Your task to perform on an android device: find which apps use the phone's location Image 0: 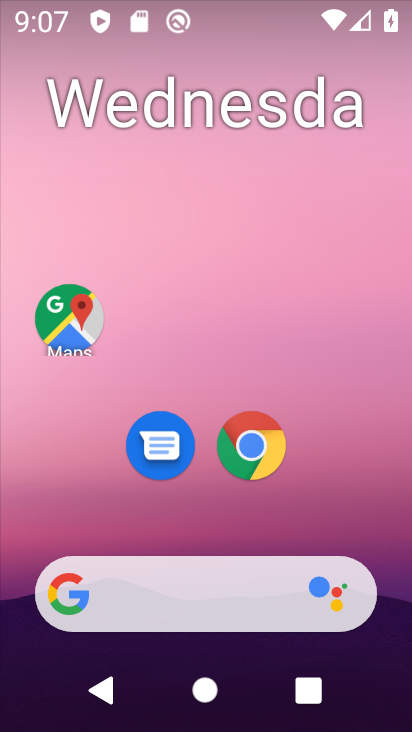
Step 0: press home button
Your task to perform on an android device: find which apps use the phone's location Image 1: 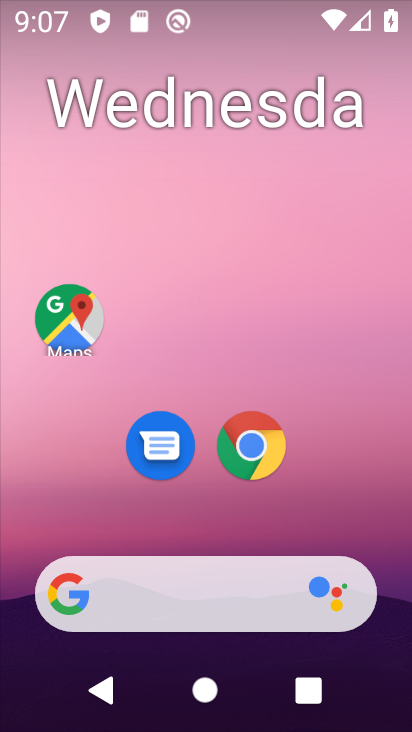
Step 1: drag from (244, 419) to (318, 133)
Your task to perform on an android device: find which apps use the phone's location Image 2: 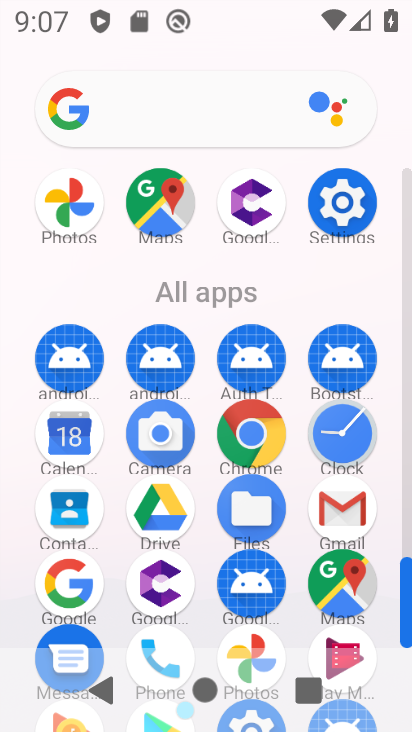
Step 2: click (348, 222)
Your task to perform on an android device: find which apps use the phone's location Image 3: 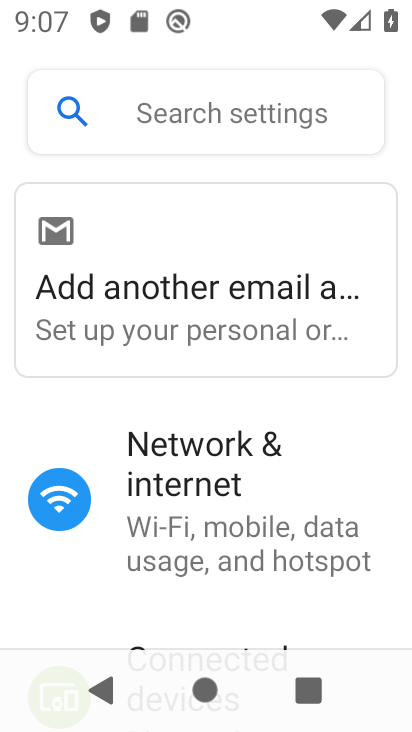
Step 3: drag from (203, 608) to (335, 118)
Your task to perform on an android device: find which apps use the phone's location Image 4: 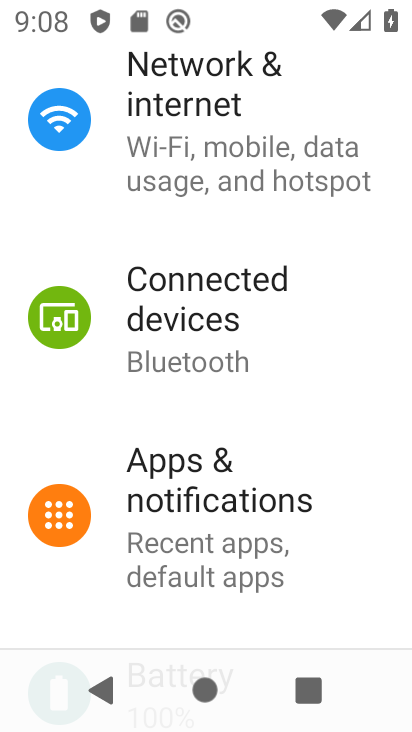
Step 4: drag from (218, 588) to (364, 237)
Your task to perform on an android device: find which apps use the phone's location Image 5: 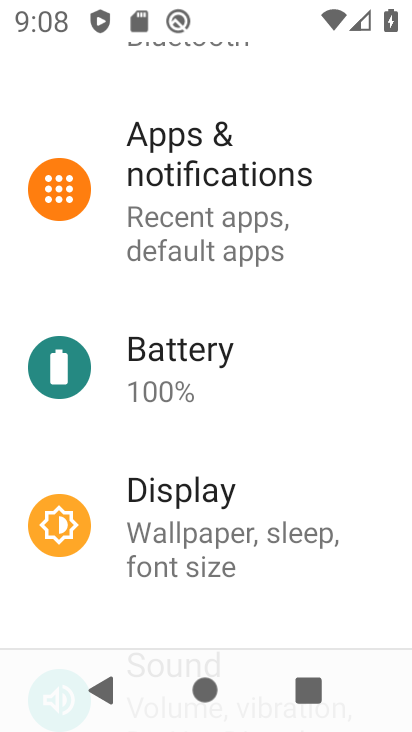
Step 5: drag from (189, 617) to (324, 48)
Your task to perform on an android device: find which apps use the phone's location Image 6: 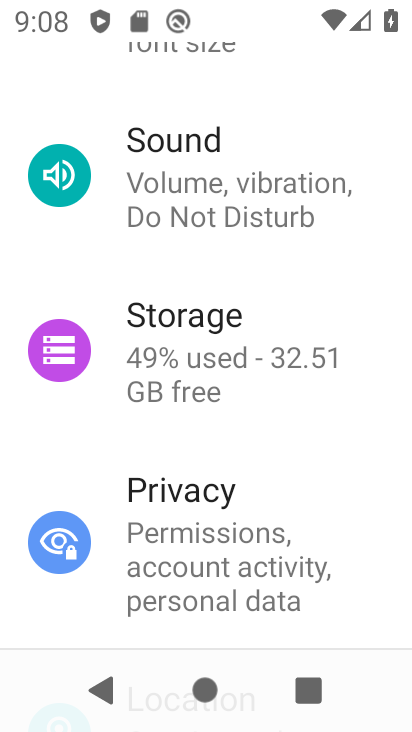
Step 6: drag from (196, 567) to (255, 142)
Your task to perform on an android device: find which apps use the phone's location Image 7: 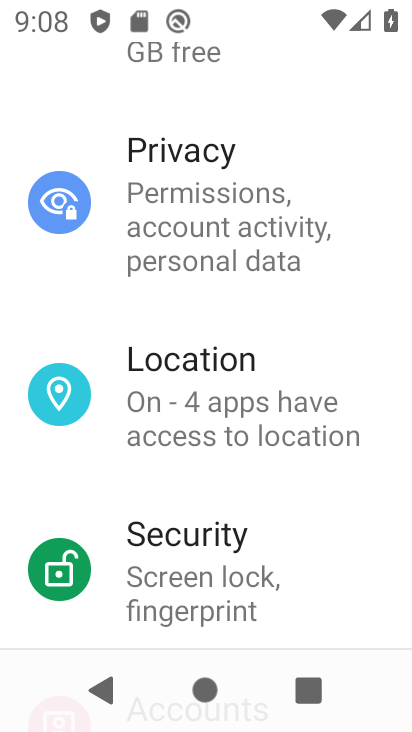
Step 7: click (207, 397)
Your task to perform on an android device: find which apps use the phone's location Image 8: 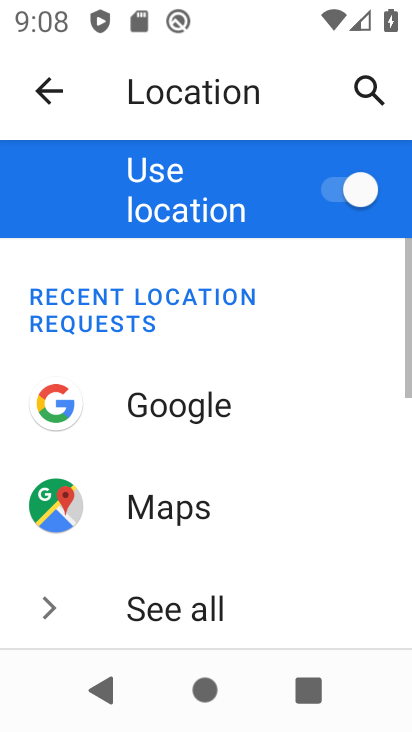
Step 8: drag from (223, 571) to (286, 64)
Your task to perform on an android device: find which apps use the phone's location Image 9: 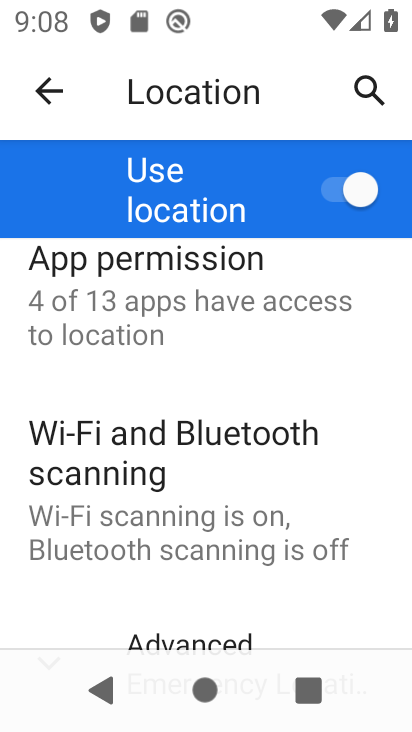
Step 9: drag from (245, 487) to (292, 192)
Your task to perform on an android device: find which apps use the phone's location Image 10: 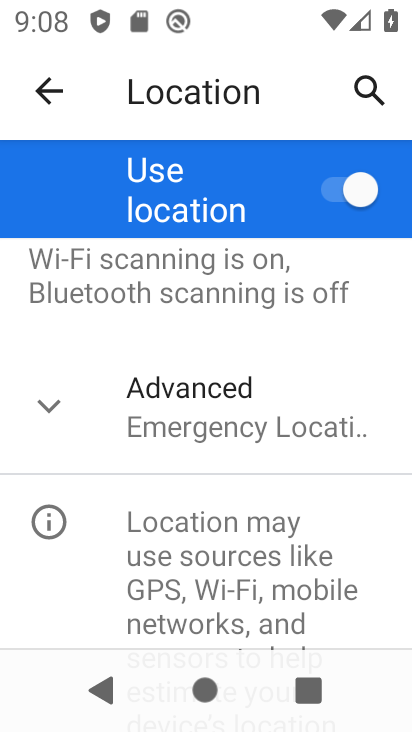
Step 10: drag from (292, 326) to (255, 625)
Your task to perform on an android device: find which apps use the phone's location Image 11: 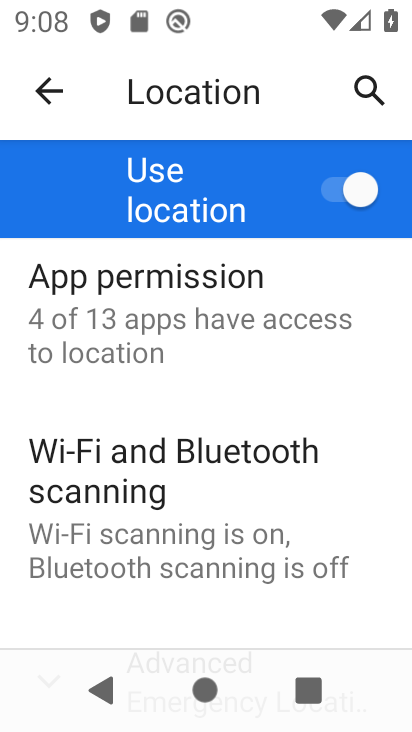
Step 11: click (165, 313)
Your task to perform on an android device: find which apps use the phone's location Image 12: 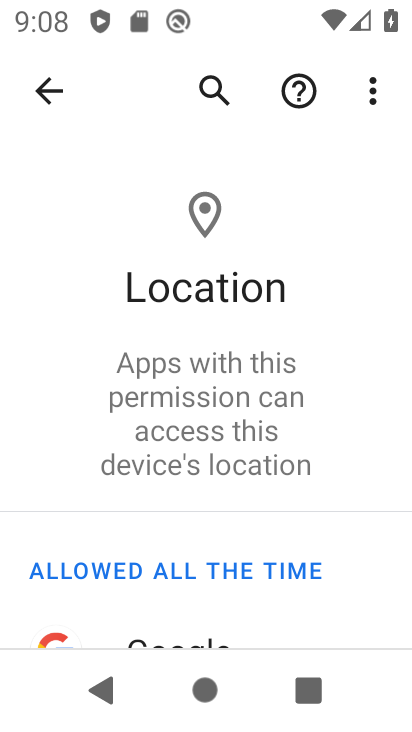
Step 12: drag from (212, 537) to (326, 77)
Your task to perform on an android device: find which apps use the phone's location Image 13: 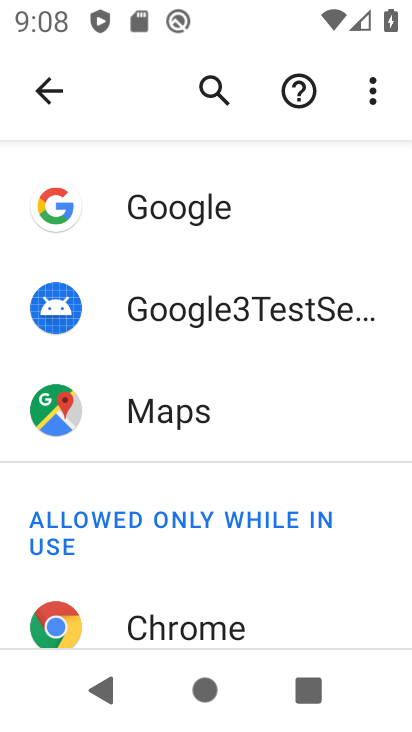
Step 13: drag from (209, 559) to (296, 7)
Your task to perform on an android device: find which apps use the phone's location Image 14: 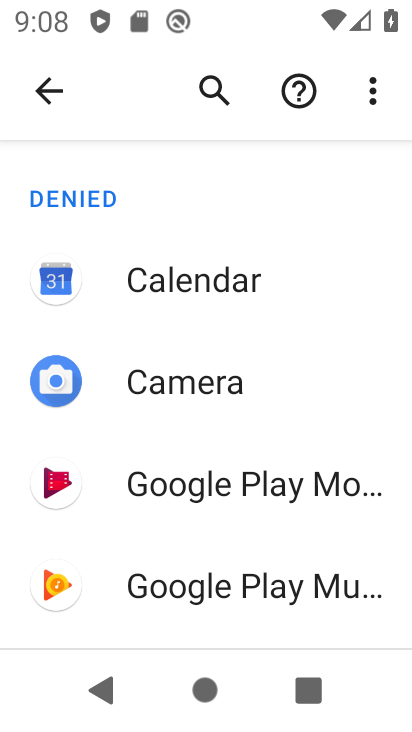
Step 14: drag from (240, 525) to (298, 36)
Your task to perform on an android device: find which apps use the phone's location Image 15: 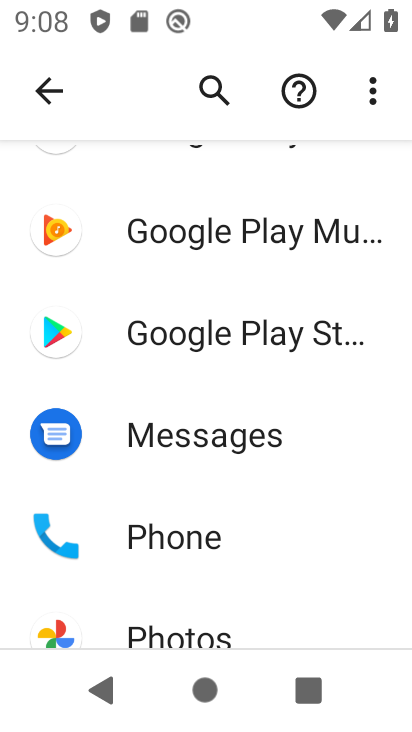
Step 15: click (176, 538)
Your task to perform on an android device: find which apps use the phone's location Image 16: 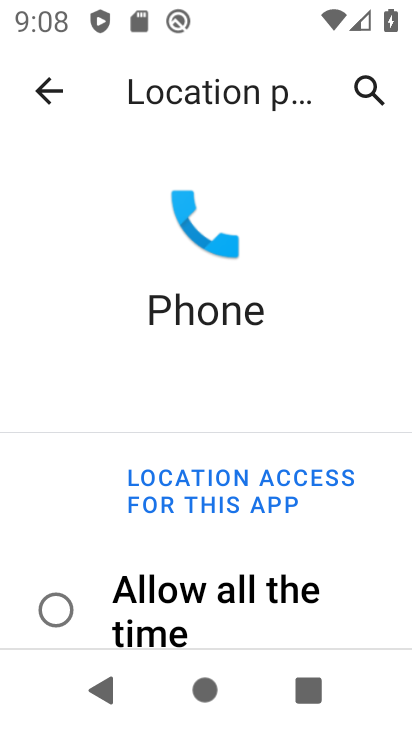
Step 16: task complete